Your task to perform on an android device: toggle priority inbox in the gmail app Image 0: 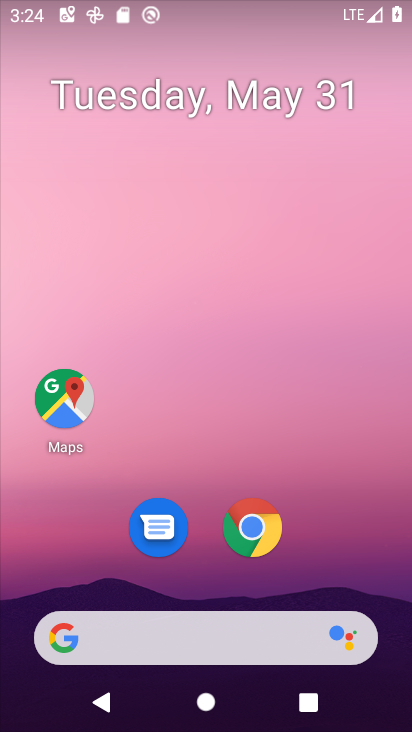
Step 0: drag from (375, 449) to (387, 124)
Your task to perform on an android device: toggle priority inbox in the gmail app Image 1: 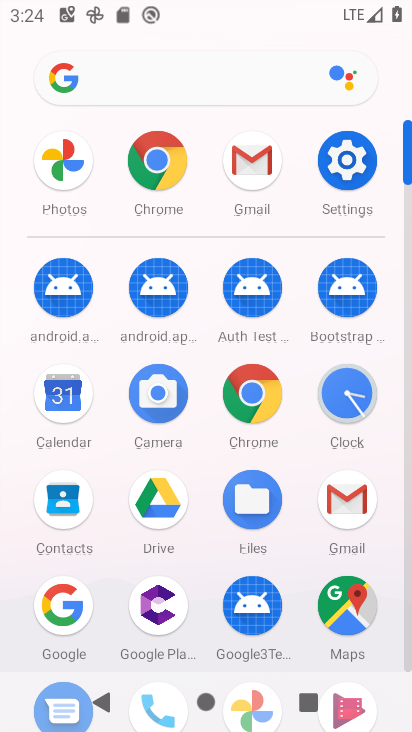
Step 1: click (267, 159)
Your task to perform on an android device: toggle priority inbox in the gmail app Image 2: 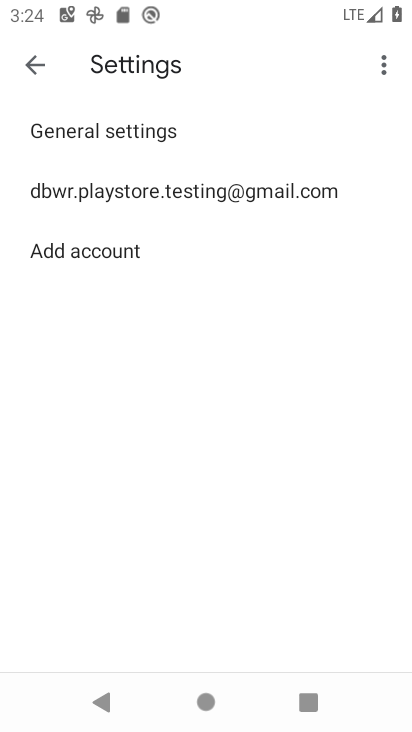
Step 2: click (36, 76)
Your task to perform on an android device: toggle priority inbox in the gmail app Image 3: 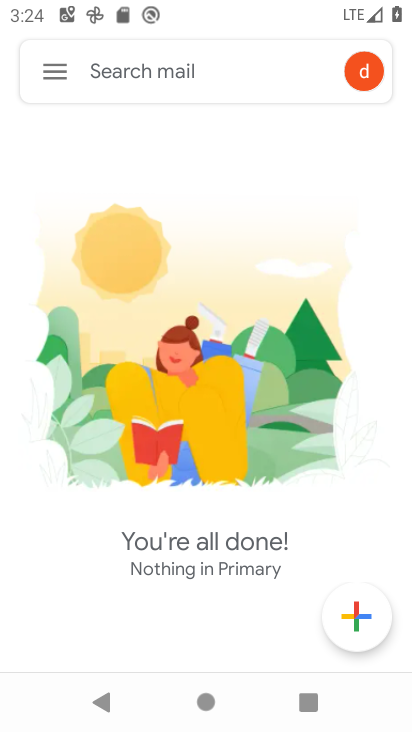
Step 3: click (46, 69)
Your task to perform on an android device: toggle priority inbox in the gmail app Image 4: 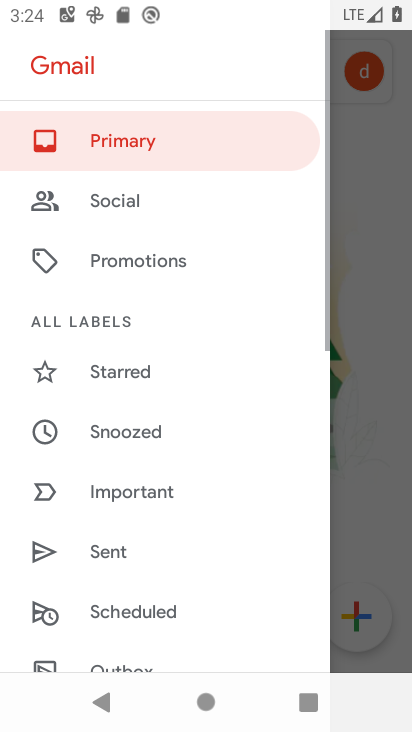
Step 4: drag from (117, 568) to (120, 191)
Your task to perform on an android device: toggle priority inbox in the gmail app Image 5: 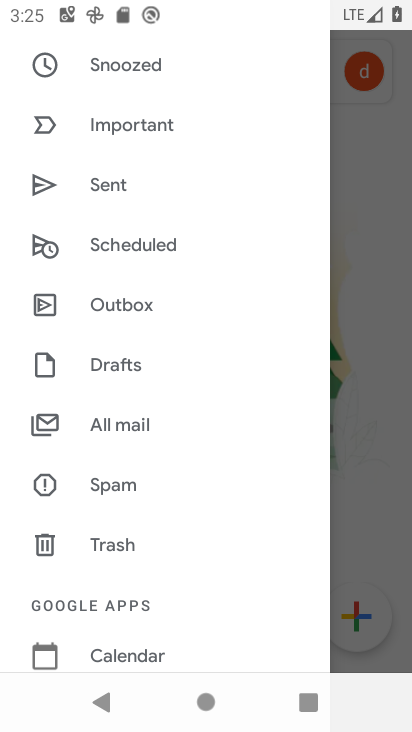
Step 5: drag from (122, 546) to (136, 201)
Your task to perform on an android device: toggle priority inbox in the gmail app Image 6: 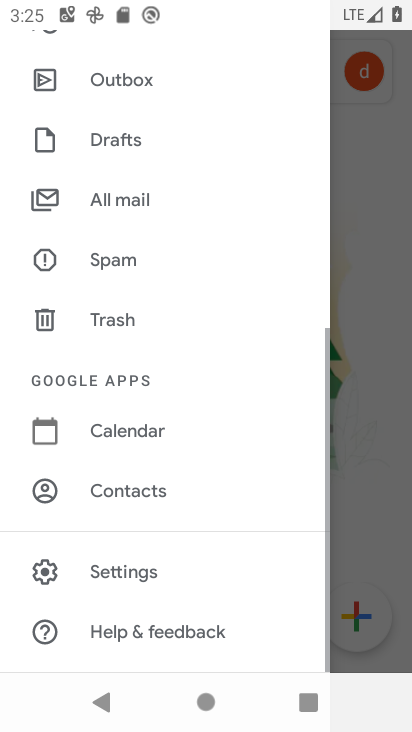
Step 6: click (111, 558)
Your task to perform on an android device: toggle priority inbox in the gmail app Image 7: 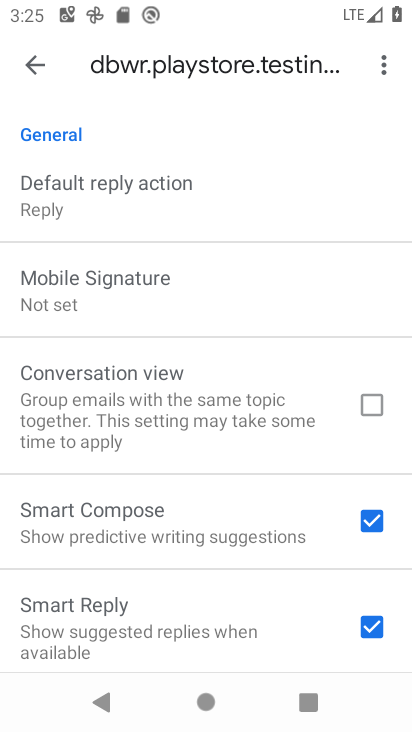
Step 7: drag from (153, 421) to (155, 713)
Your task to perform on an android device: toggle priority inbox in the gmail app Image 8: 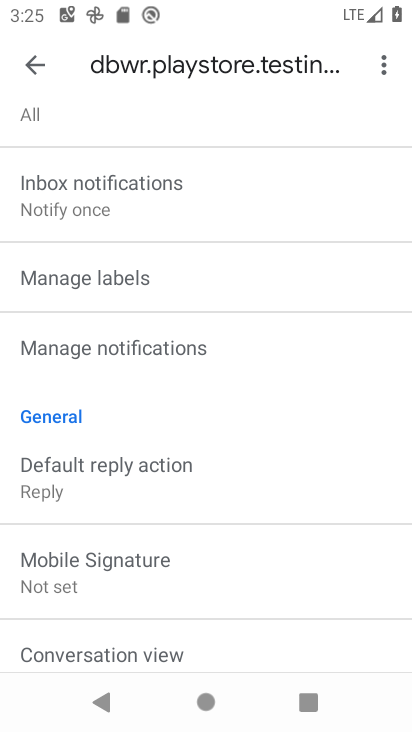
Step 8: drag from (226, 211) to (226, 680)
Your task to perform on an android device: toggle priority inbox in the gmail app Image 9: 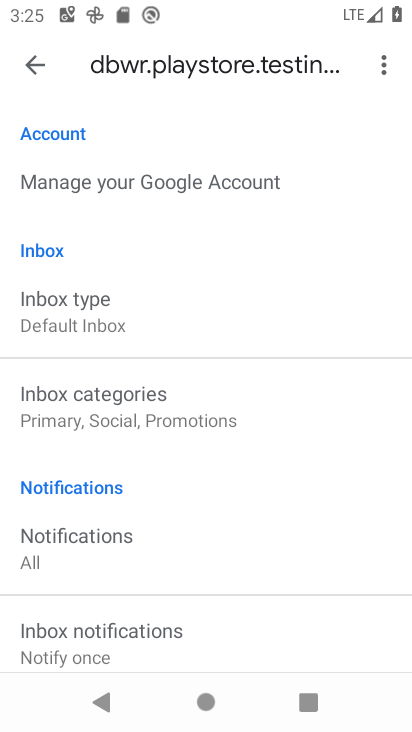
Step 9: drag from (246, 266) to (241, 580)
Your task to perform on an android device: toggle priority inbox in the gmail app Image 10: 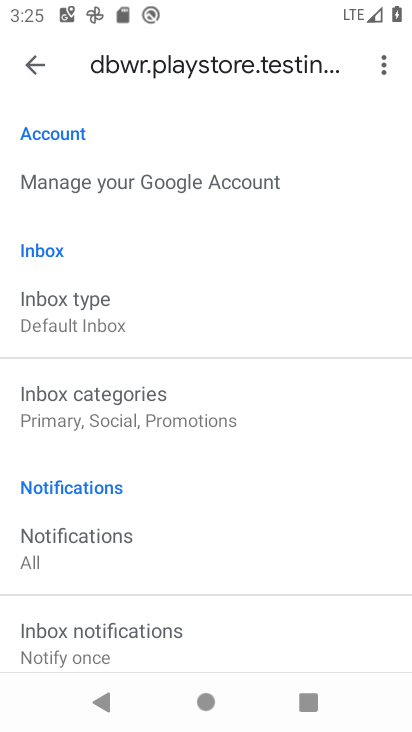
Step 10: click (51, 317)
Your task to perform on an android device: toggle priority inbox in the gmail app Image 11: 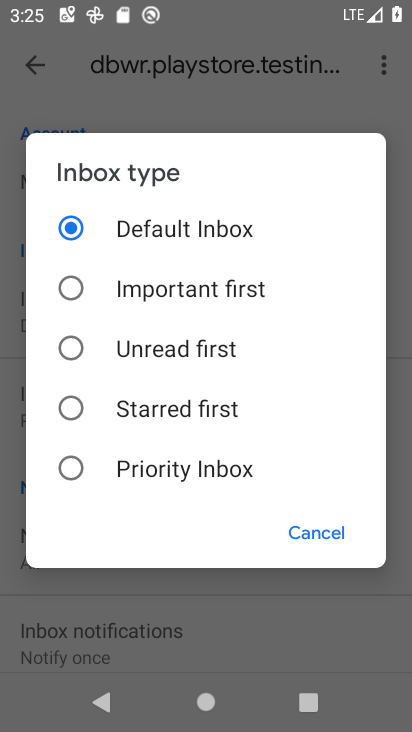
Step 11: click (174, 465)
Your task to perform on an android device: toggle priority inbox in the gmail app Image 12: 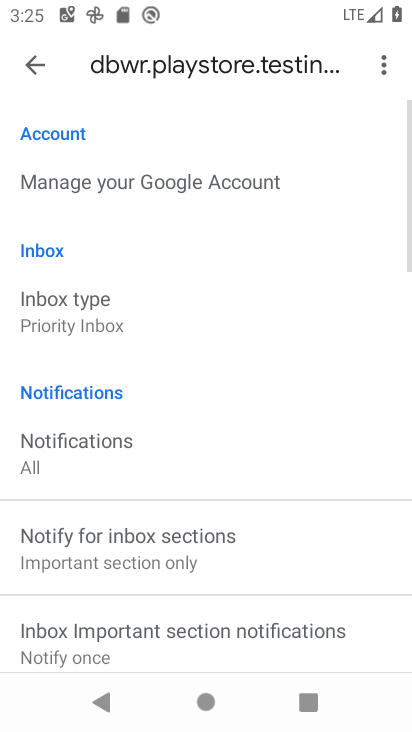
Step 12: task complete